Your task to perform on an android device: change the clock style Image 0: 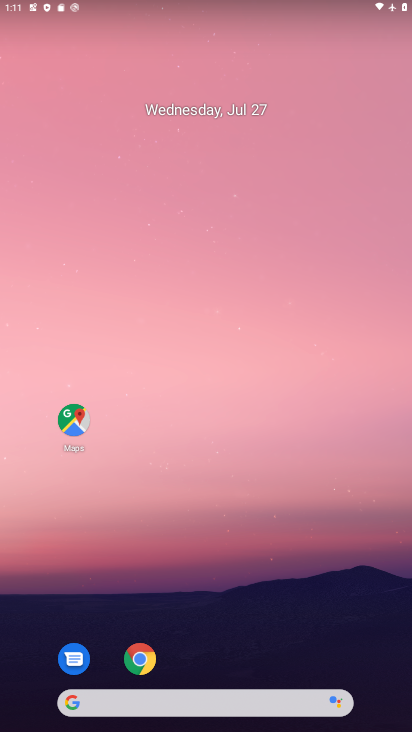
Step 0: drag from (259, 610) to (291, 16)
Your task to perform on an android device: change the clock style Image 1: 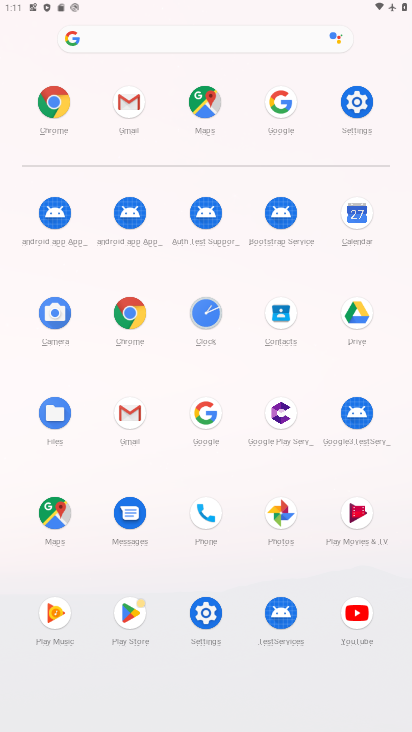
Step 1: click (214, 328)
Your task to perform on an android device: change the clock style Image 2: 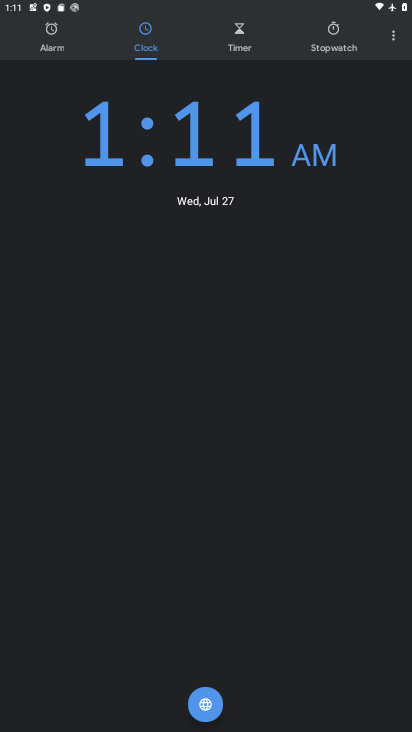
Step 2: click (397, 30)
Your task to perform on an android device: change the clock style Image 3: 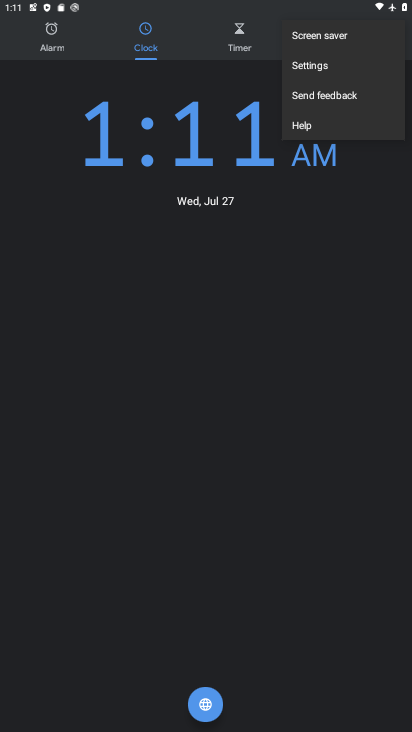
Step 3: click (334, 66)
Your task to perform on an android device: change the clock style Image 4: 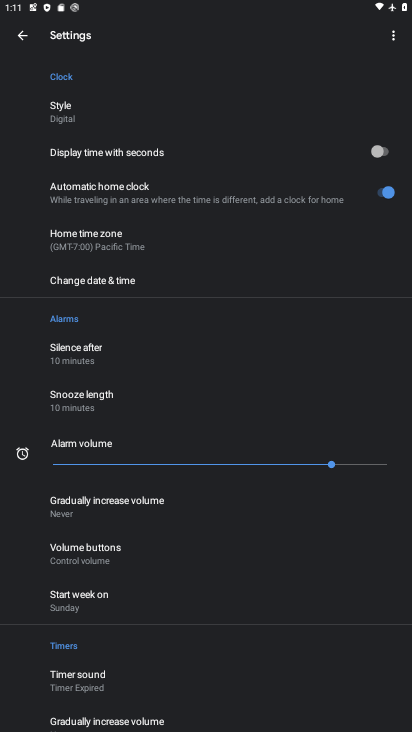
Step 4: click (177, 124)
Your task to perform on an android device: change the clock style Image 5: 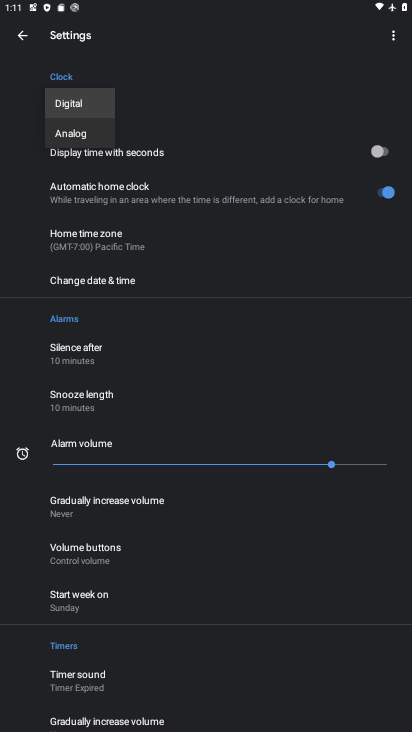
Step 5: click (98, 129)
Your task to perform on an android device: change the clock style Image 6: 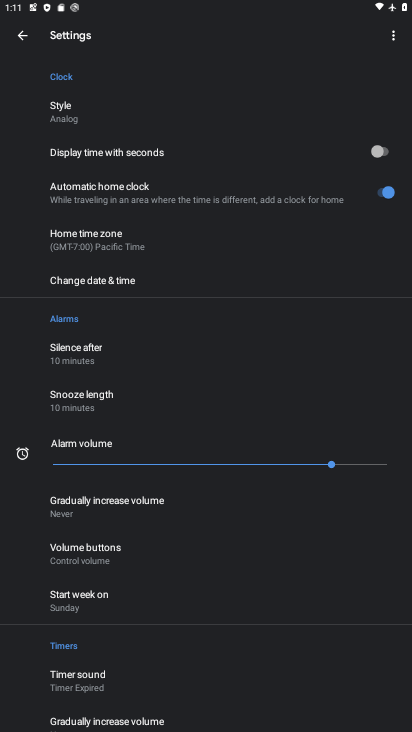
Step 6: task complete